Your task to perform on an android device: Open internet settings Image 0: 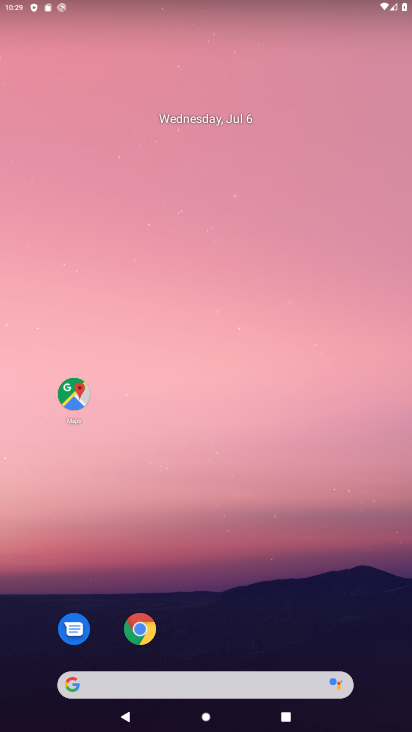
Step 0: drag from (211, 652) to (230, 17)
Your task to perform on an android device: Open internet settings Image 1: 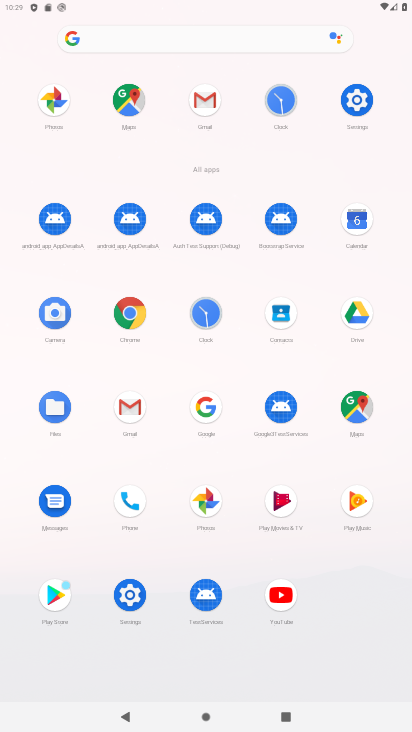
Step 1: click (354, 97)
Your task to perform on an android device: Open internet settings Image 2: 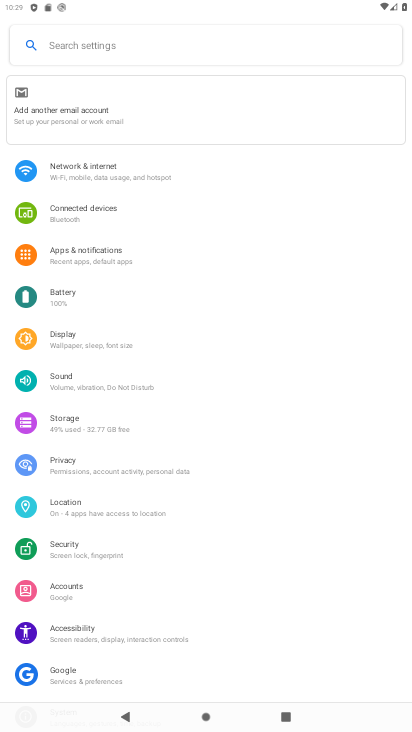
Step 2: click (99, 167)
Your task to perform on an android device: Open internet settings Image 3: 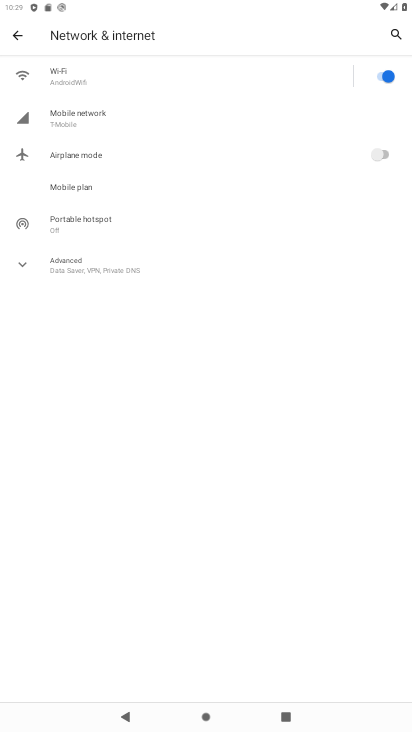
Step 3: click (78, 263)
Your task to perform on an android device: Open internet settings Image 4: 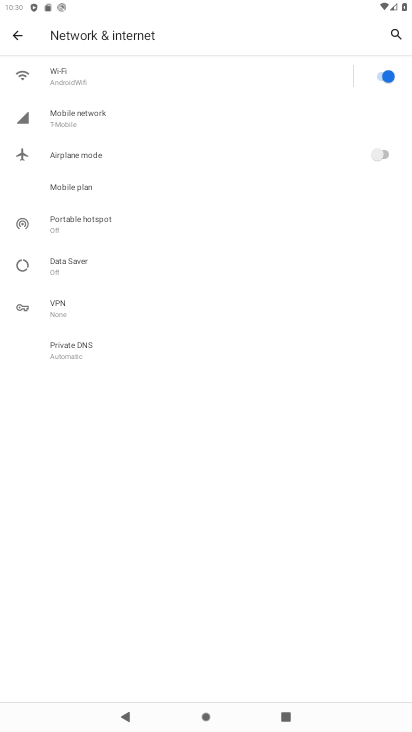
Step 4: task complete